Your task to perform on an android device: toggle show notifications on the lock screen Image 0: 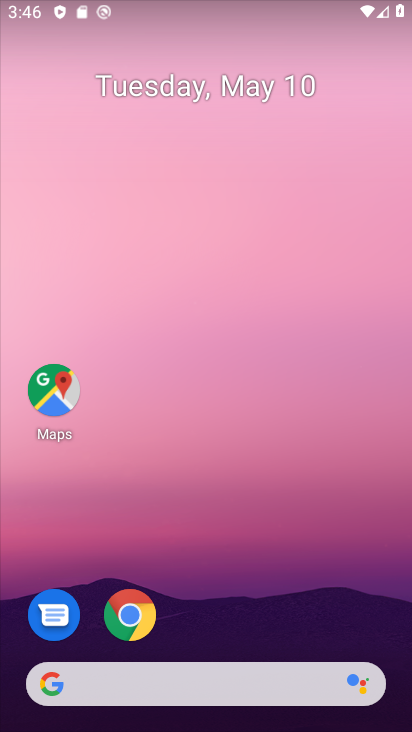
Step 0: drag from (210, 724) to (207, 152)
Your task to perform on an android device: toggle show notifications on the lock screen Image 1: 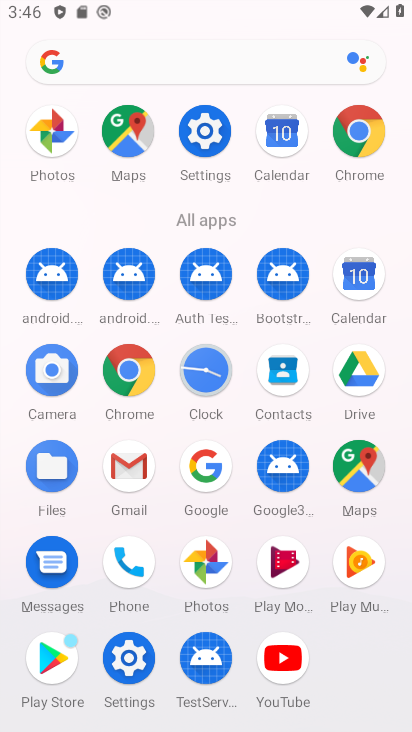
Step 1: click (130, 653)
Your task to perform on an android device: toggle show notifications on the lock screen Image 2: 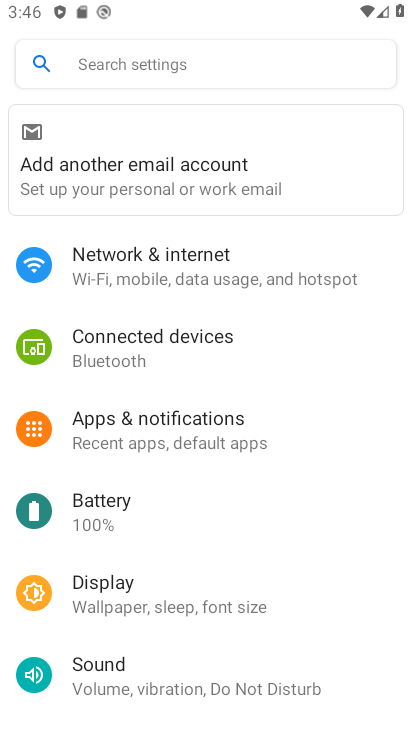
Step 2: click (165, 432)
Your task to perform on an android device: toggle show notifications on the lock screen Image 3: 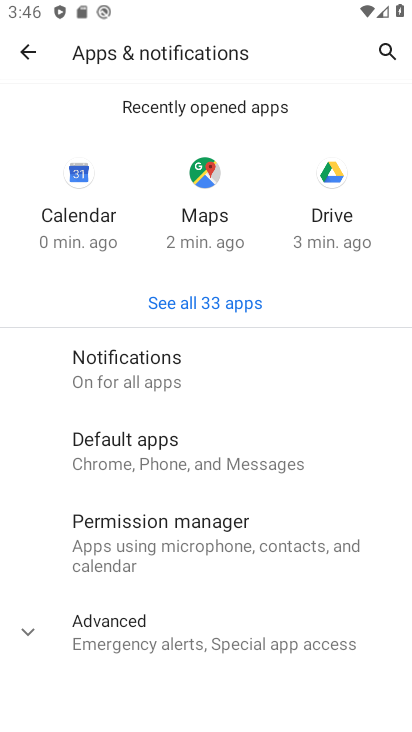
Step 3: click (125, 365)
Your task to perform on an android device: toggle show notifications on the lock screen Image 4: 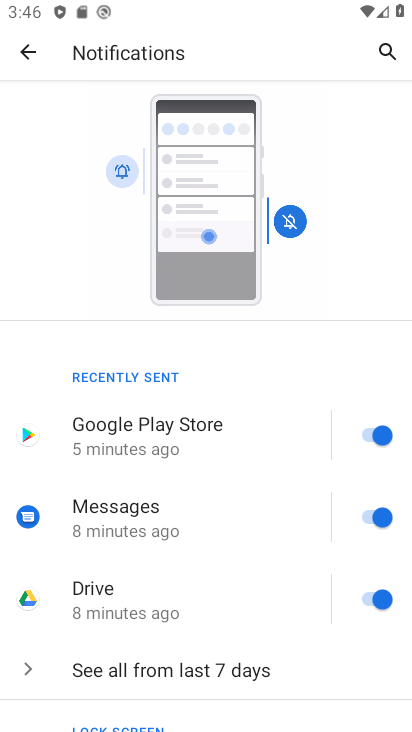
Step 4: drag from (199, 707) to (204, 380)
Your task to perform on an android device: toggle show notifications on the lock screen Image 5: 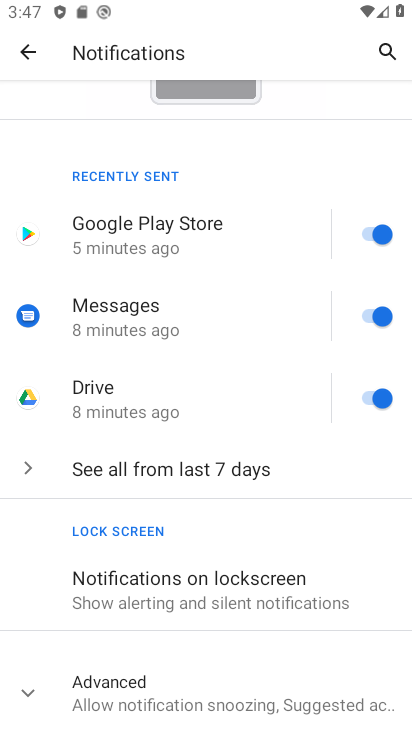
Step 5: click (188, 588)
Your task to perform on an android device: toggle show notifications on the lock screen Image 6: 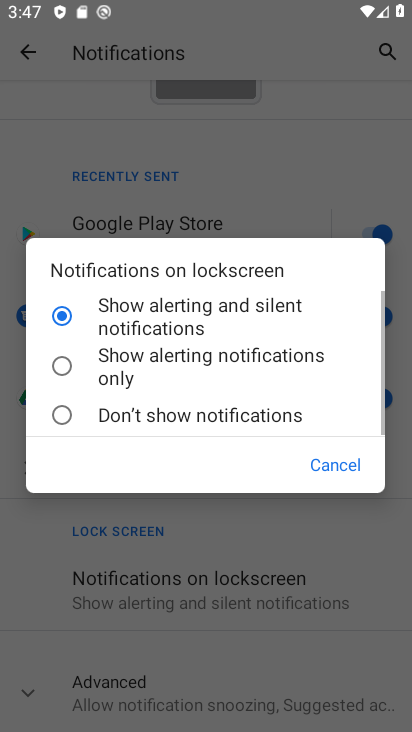
Step 6: click (67, 359)
Your task to perform on an android device: toggle show notifications on the lock screen Image 7: 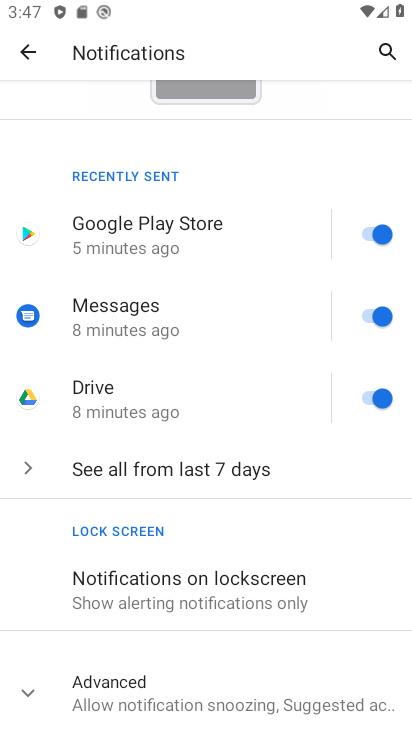
Step 7: task complete